Your task to perform on an android device: turn on javascript in the chrome app Image 0: 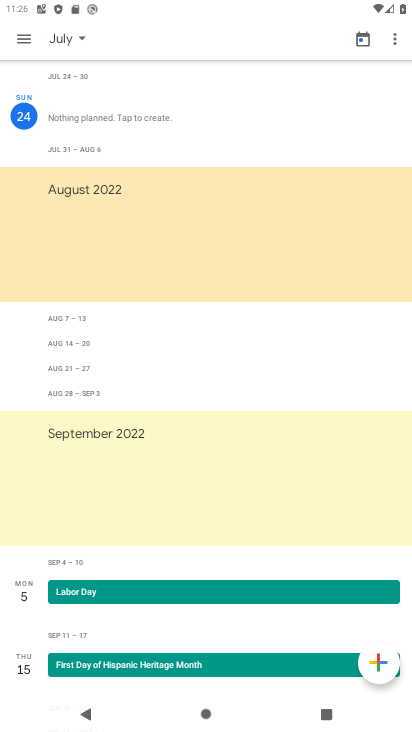
Step 0: press home button
Your task to perform on an android device: turn on javascript in the chrome app Image 1: 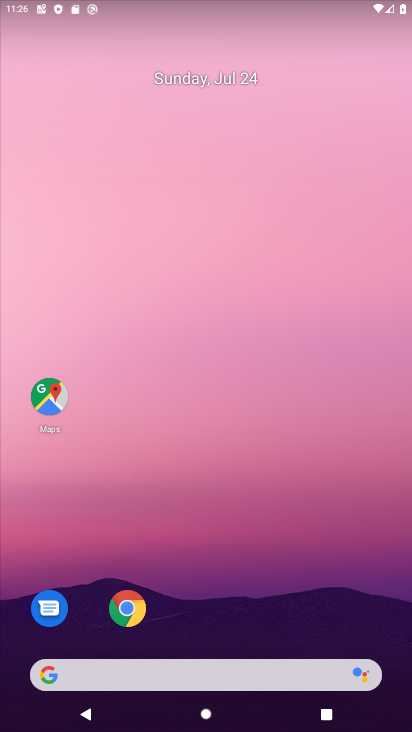
Step 1: click (127, 610)
Your task to perform on an android device: turn on javascript in the chrome app Image 2: 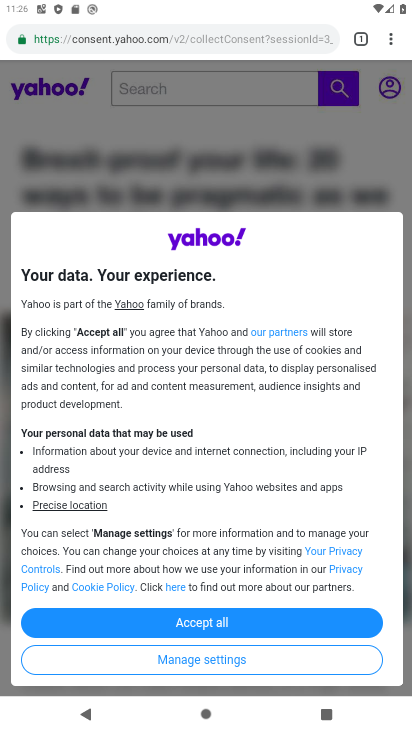
Step 2: click (391, 37)
Your task to perform on an android device: turn on javascript in the chrome app Image 3: 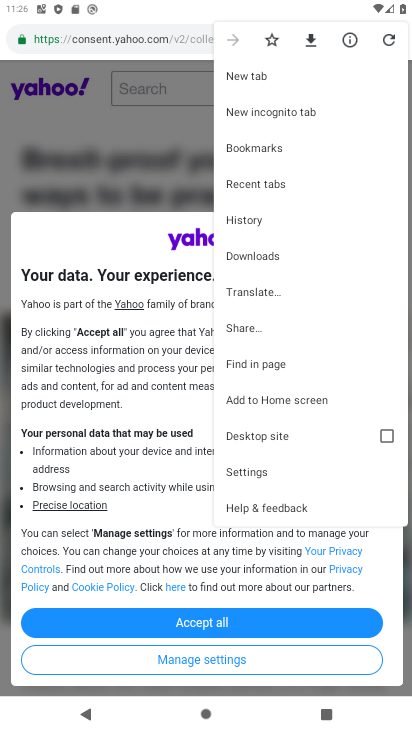
Step 3: click (249, 469)
Your task to perform on an android device: turn on javascript in the chrome app Image 4: 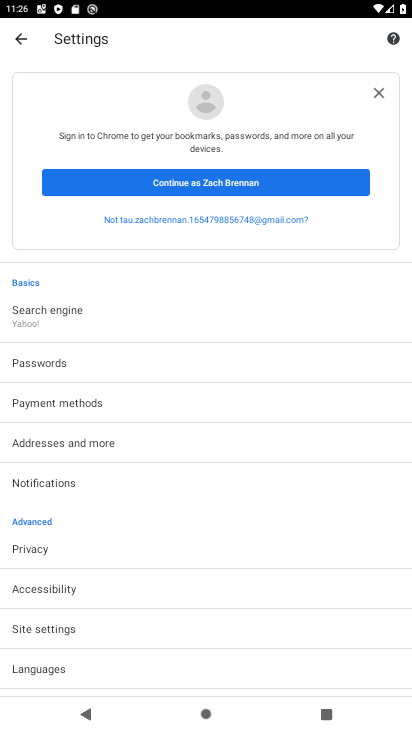
Step 4: drag from (137, 546) to (130, 316)
Your task to perform on an android device: turn on javascript in the chrome app Image 5: 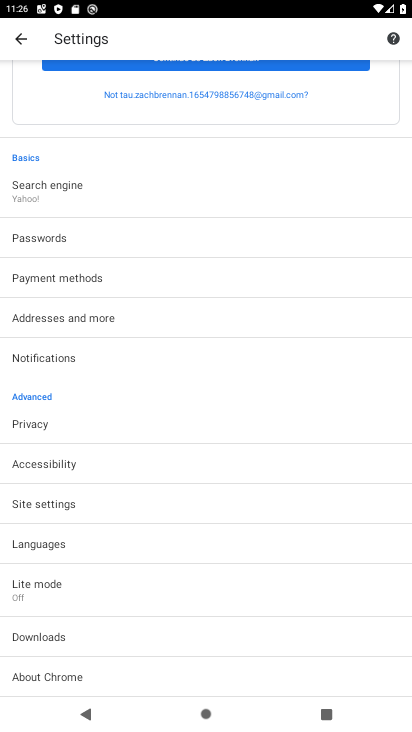
Step 5: click (35, 504)
Your task to perform on an android device: turn on javascript in the chrome app Image 6: 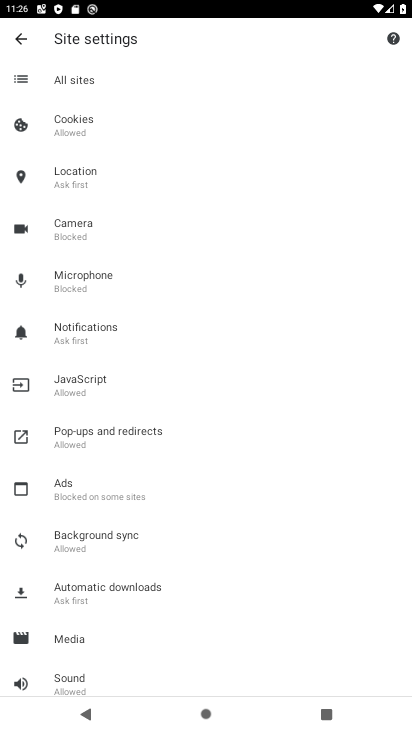
Step 6: click (70, 389)
Your task to perform on an android device: turn on javascript in the chrome app Image 7: 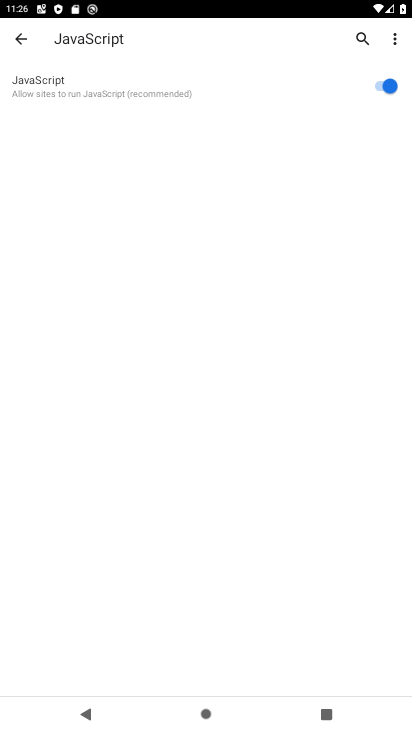
Step 7: task complete